Your task to perform on an android device: Go to ESPN.com Image 0: 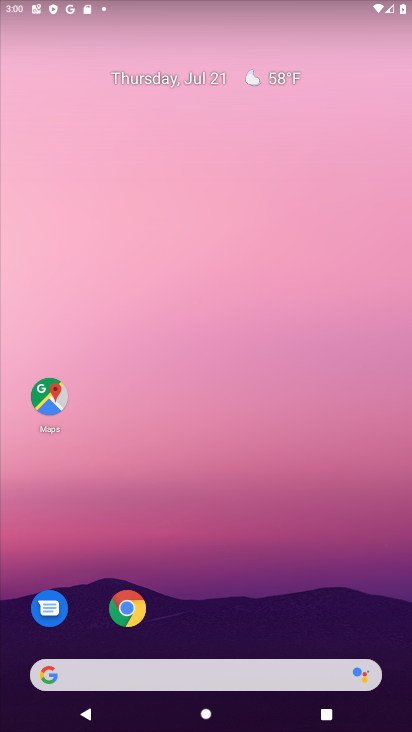
Step 0: press home button
Your task to perform on an android device: Go to ESPN.com Image 1: 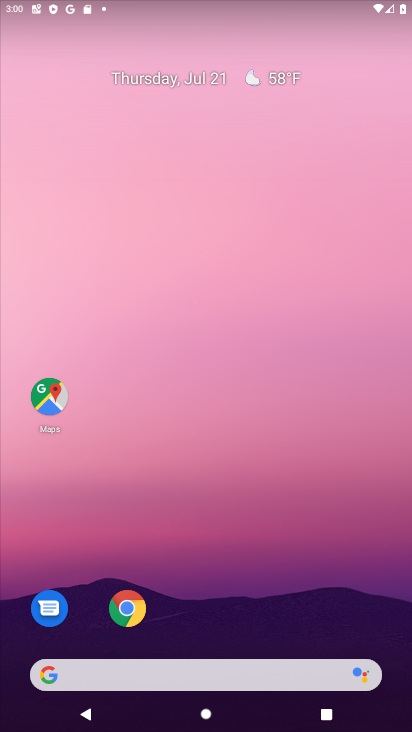
Step 1: click (125, 599)
Your task to perform on an android device: Go to ESPN.com Image 2: 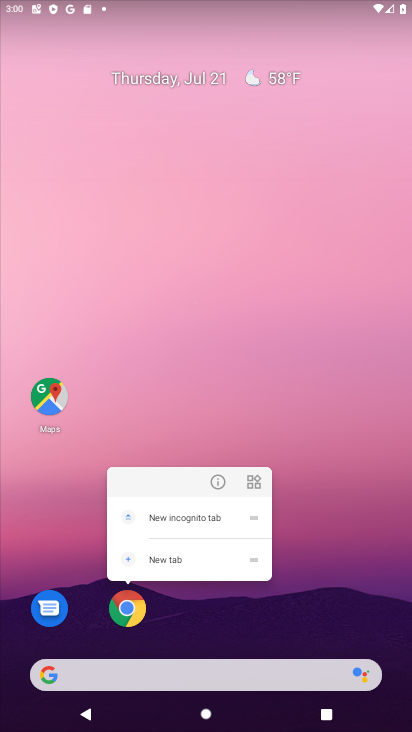
Step 2: click (126, 605)
Your task to perform on an android device: Go to ESPN.com Image 3: 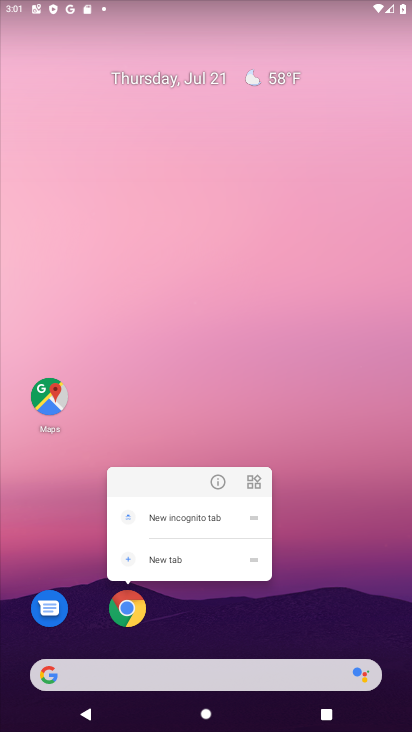
Step 3: click (122, 608)
Your task to perform on an android device: Go to ESPN.com Image 4: 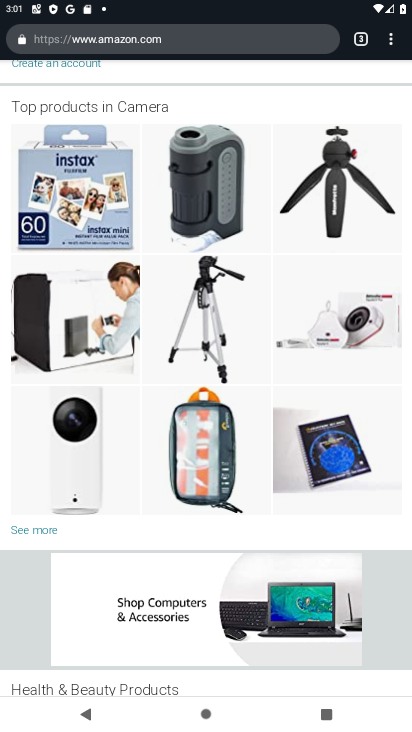
Step 4: click (357, 34)
Your task to perform on an android device: Go to ESPN.com Image 5: 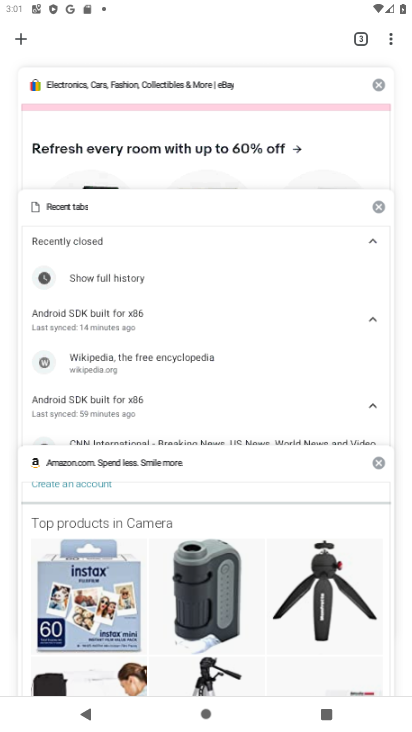
Step 5: click (25, 38)
Your task to perform on an android device: Go to ESPN.com Image 6: 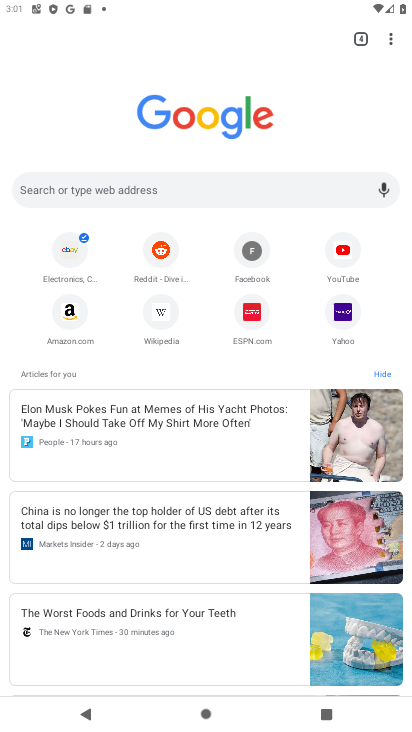
Step 6: click (245, 311)
Your task to perform on an android device: Go to ESPN.com Image 7: 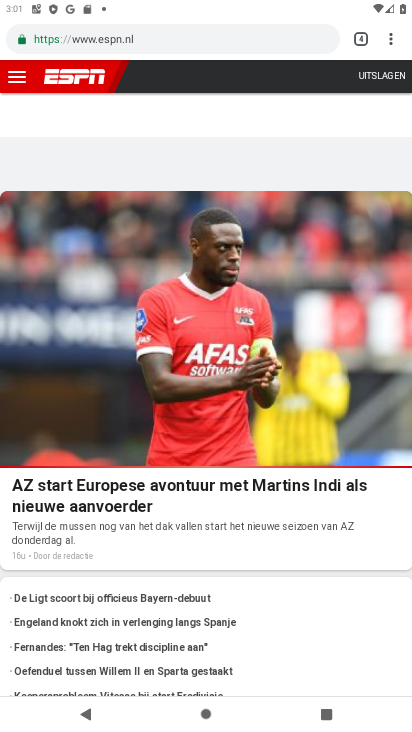
Step 7: drag from (235, 608) to (275, 374)
Your task to perform on an android device: Go to ESPN.com Image 8: 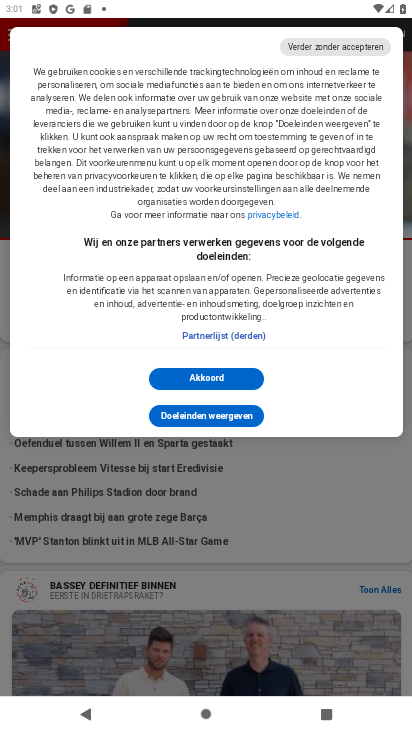
Step 8: click (211, 374)
Your task to perform on an android device: Go to ESPN.com Image 9: 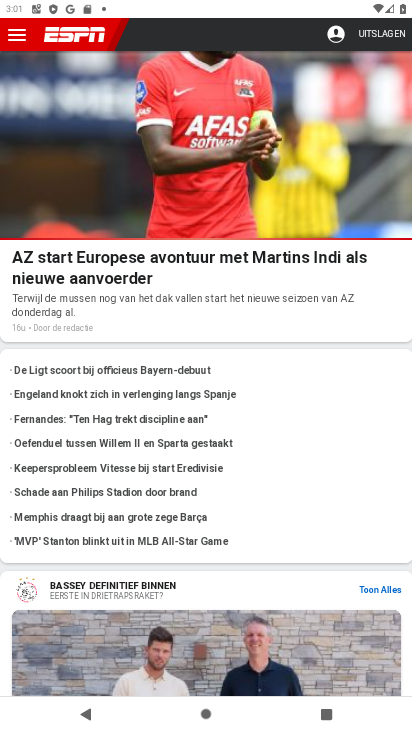
Step 9: task complete